Your task to perform on an android device: toggle wifi Image 0: 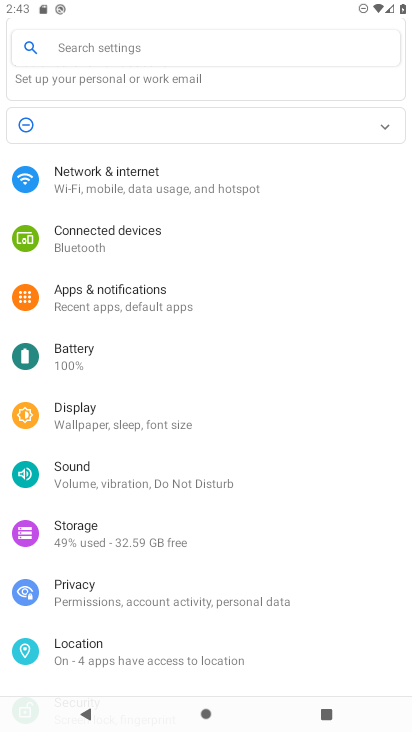
Step 0: click (113, 175)
Your task to perform on an android device: toggle wifi Image 1: 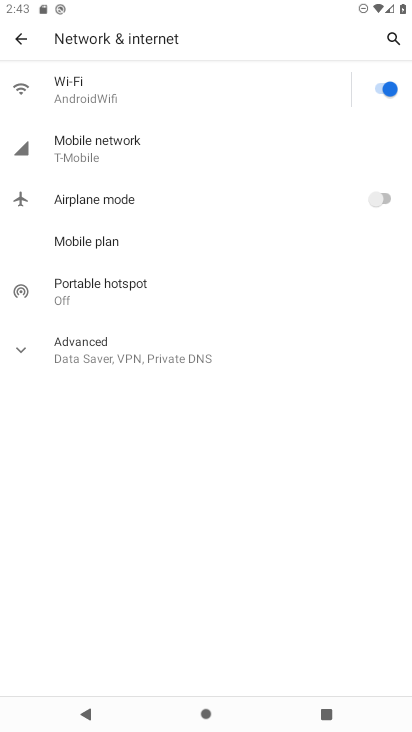
Step 1: click (373, 84)
Your task to perform on an android device: toggle wifi Image 2: 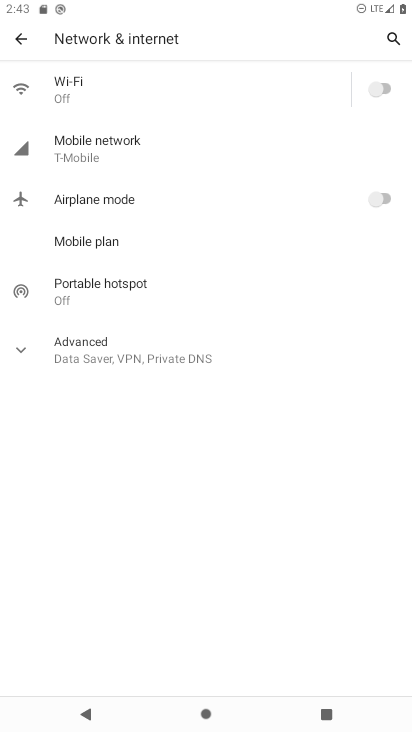
Step 2: task complete